Your task to perform on an android device: toggle pop-ups in chrome Image 0: 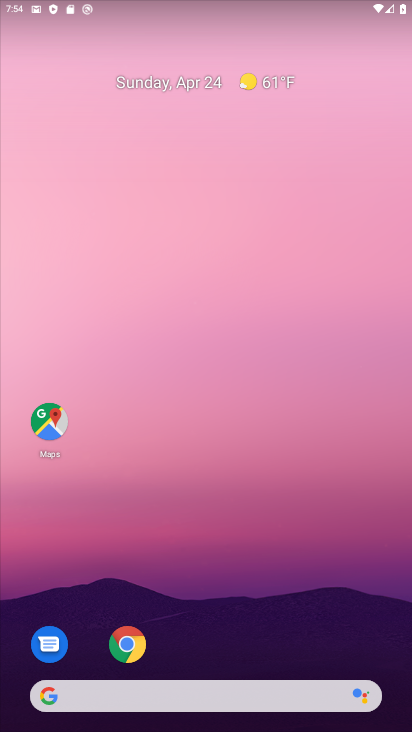
Step 0: click (134, 655)
Your task to perform on an android device: toggle pop-ups in chrome Image 1: 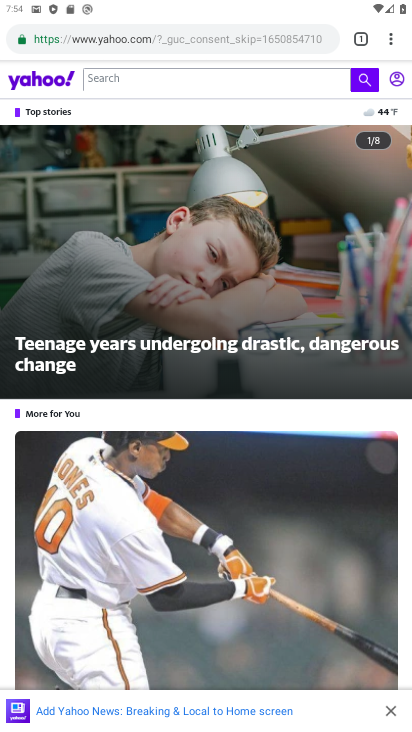
Step 1: click (388, 43)
Your task to perform on an android device: toggle pop-ups in chrome Image 2: 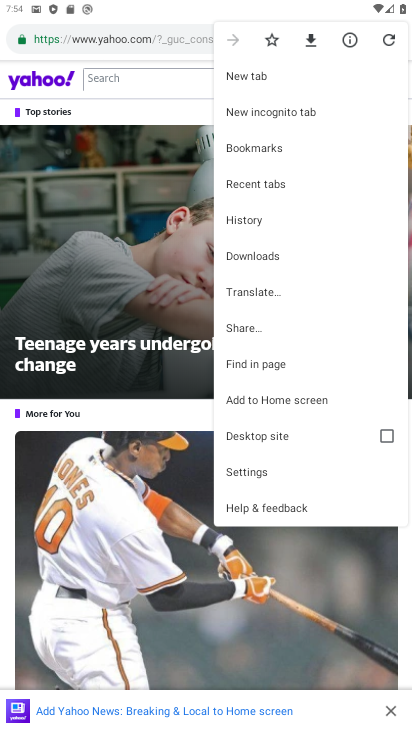
Step 2: click (243, 478)
Your task to perform on an android device: toggle pop-ups in chrome Image 3: 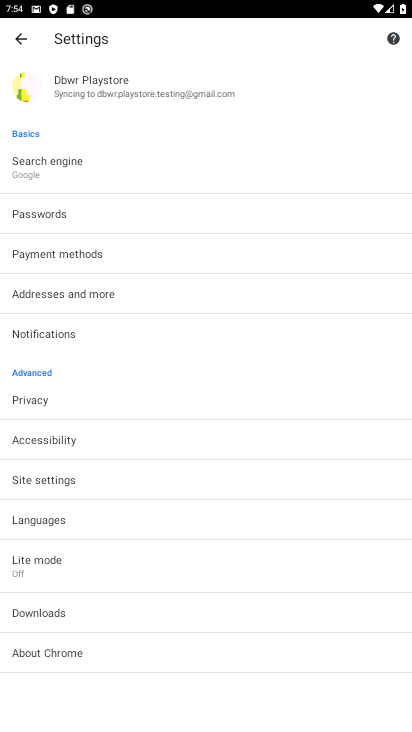
Step 3: click (55, 481)
Your task to perform on an android device: toggle pop-ups in chrome Image 4: 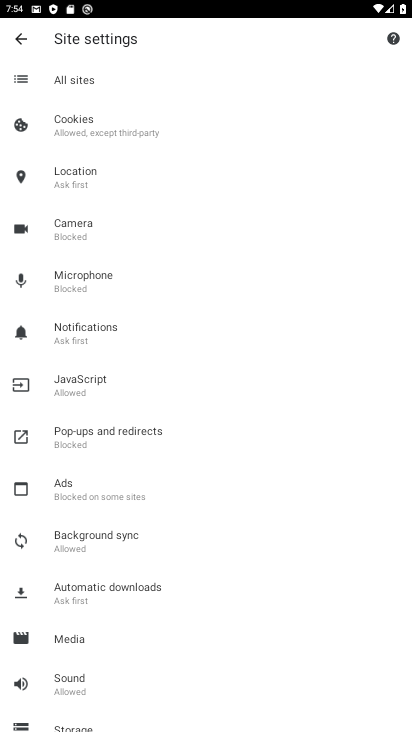
Step 4: click (105, 440)
Your task to perform on an android device: toggle pop-ups in chrome Image 5: 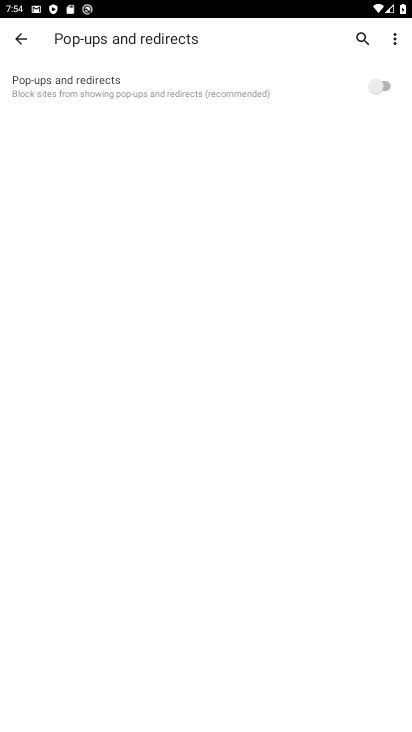
Step 5: click (388, 80)
Your task to perform on an android device: toggle pop-ups in chrome Image 6: 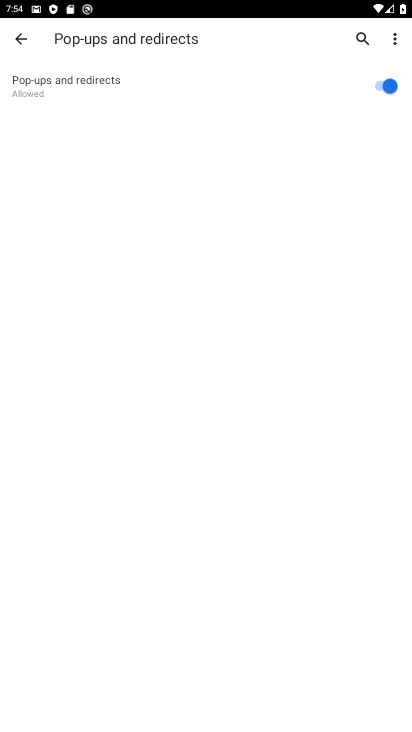
Step 6: task complete